Your task to perform on an android device: show emergency info Image 0: 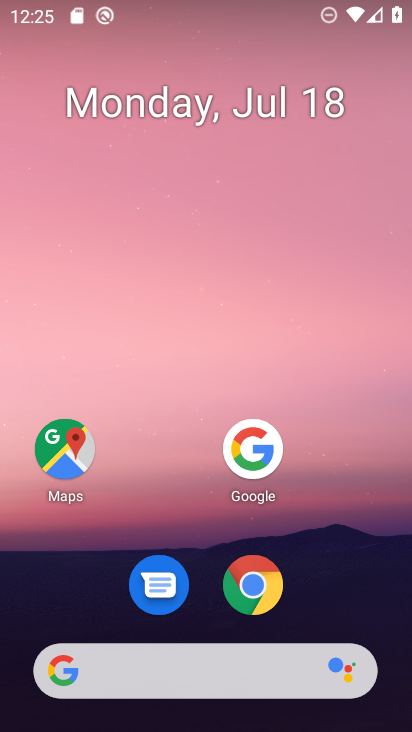
Step 0: drag from (267, 661) to (317, 94)
Your task to perform on an android device: show emergency info Image 1: 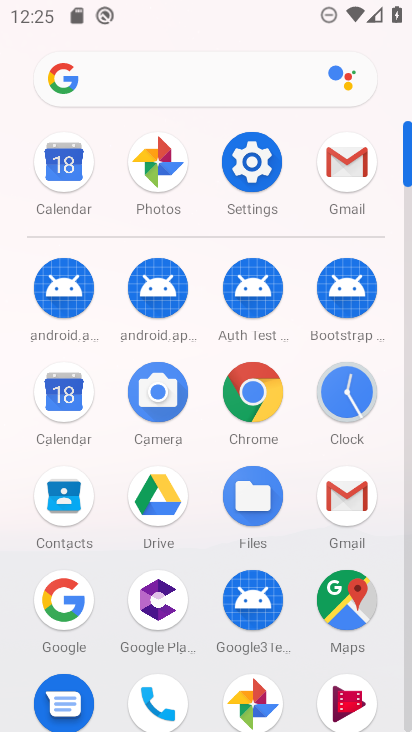
Step 1: click (235, 149)
Your task to perform on an android device: show emergency info Image 2: 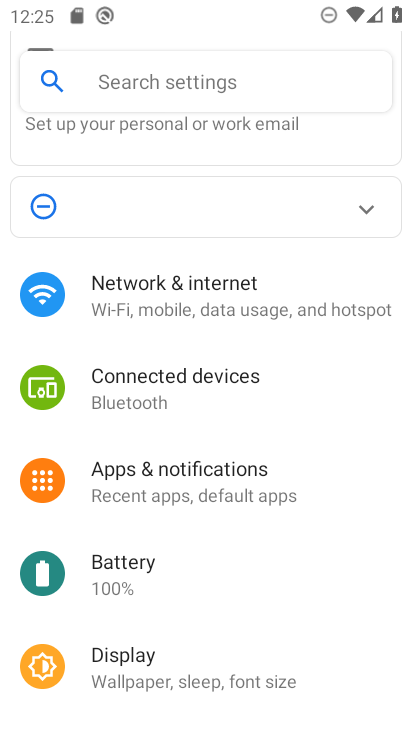
Step 2: drag from (253, 652) to (357, 26)
Your task to perform on an android device: show emergency info Image 3: 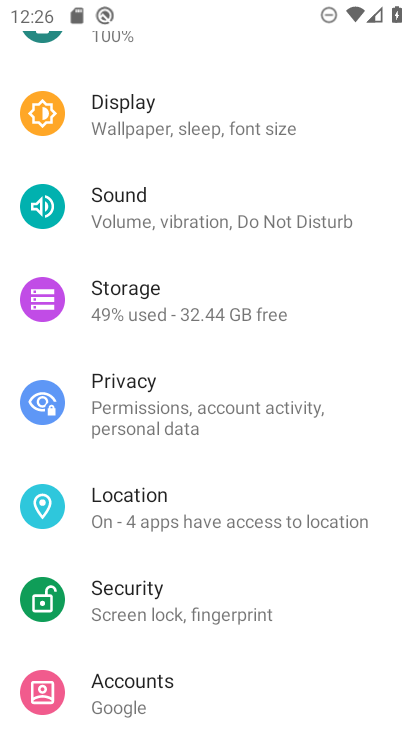
Step 3: drag from (256, 643) to (410, 138)
Your task to perform on an android device: show emergency info Image 4: 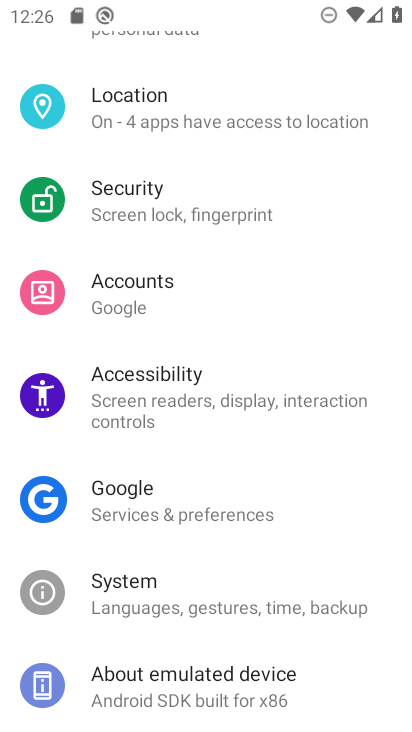
Step 4: click (181, 692)
Your task to perform on an android device: show emergency info Image 5: 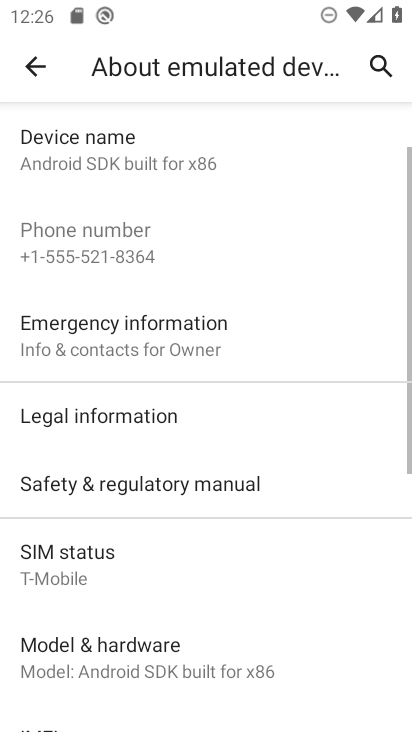
Step 5: click (159, 340)
Your task to perform on an android device: show emergency info Image 6: 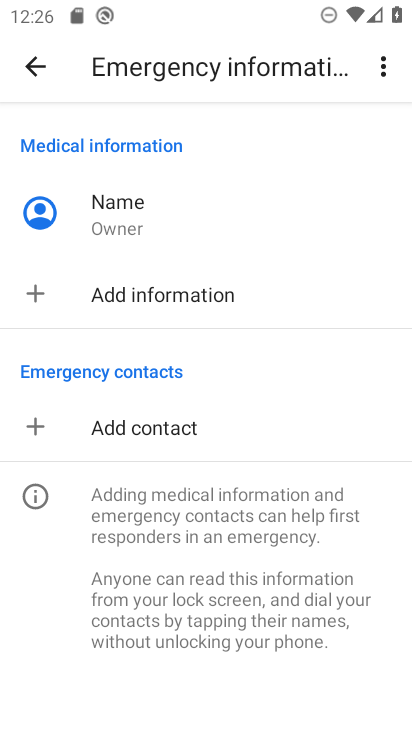
Step 6: task complete